Your task to perform on an android device: turn off notifications settings in the gmail app Image 0: 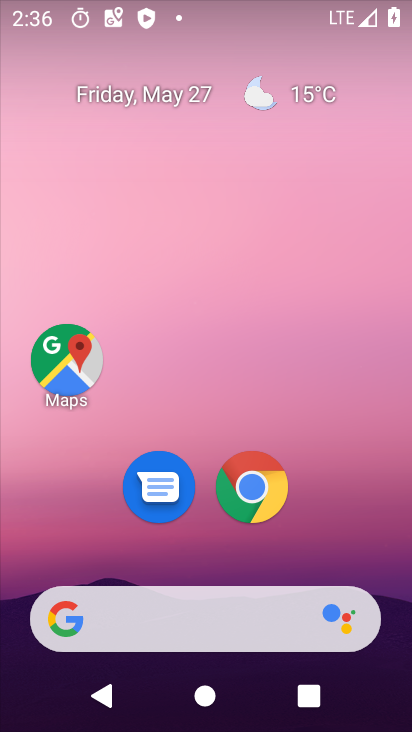
Step 0: drag from (348, 507) to (332, 40)
Your task to perform on an android device: turn off notifications settings in the gmail app Image 1: 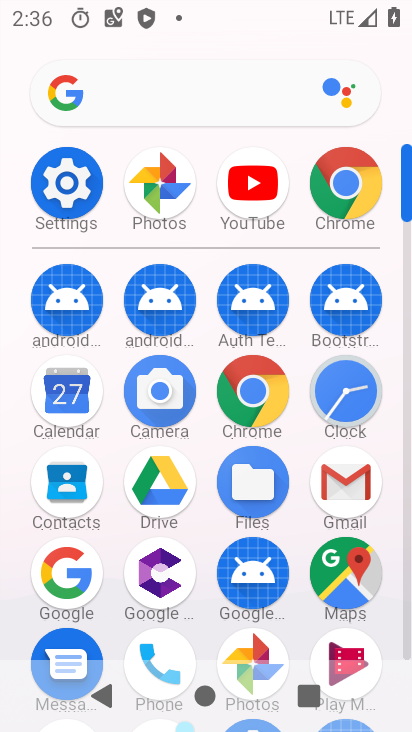
Step 1: click (357, 493)
Your task to perform on an android device: turn off notifications settings in the gmail app Image 2: 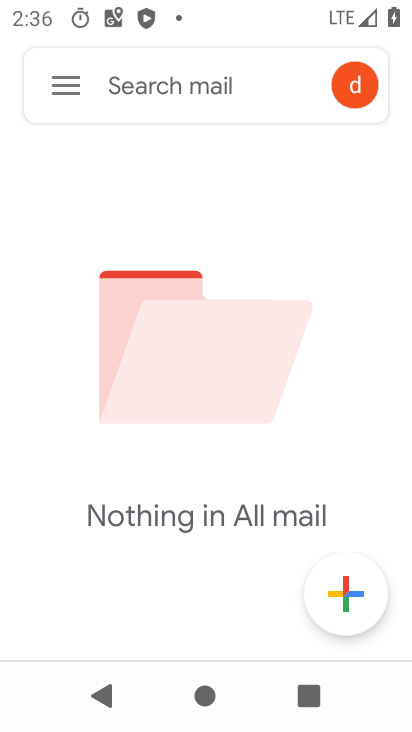
Step 2: click (64, 77)
Your task to perform on an android device: turn off notifications settings in the gmail app Image 3: 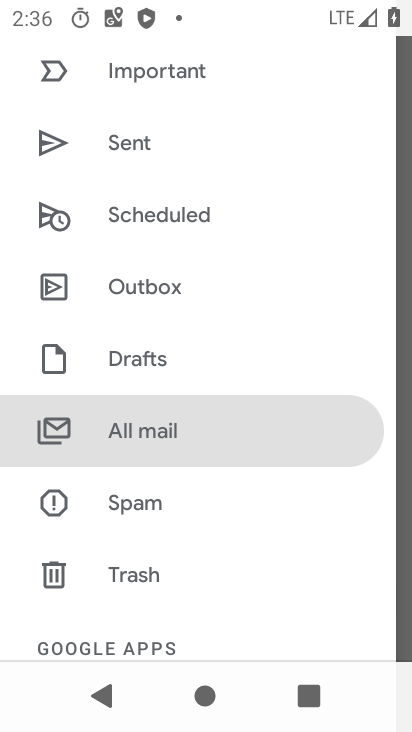
Step 3: drag from (177, 587) to (202, 239)
Your task to perform on an android device: turn off notifications settings in the gmail app Image 4: 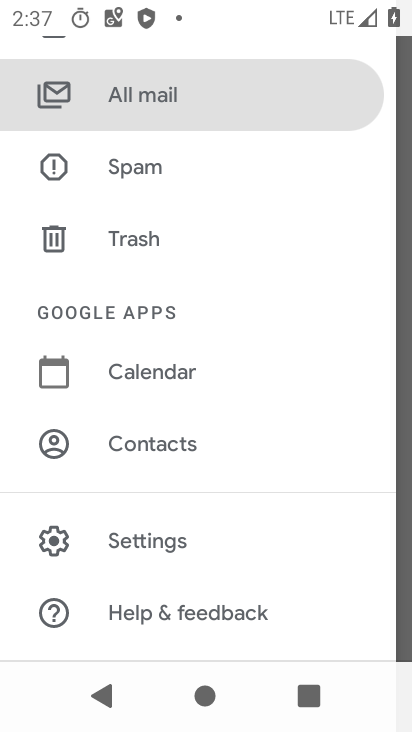
Step 4: click (155, 532)
Your task to perform on an android device: turn off notifications settings in the gmail app Image 5: 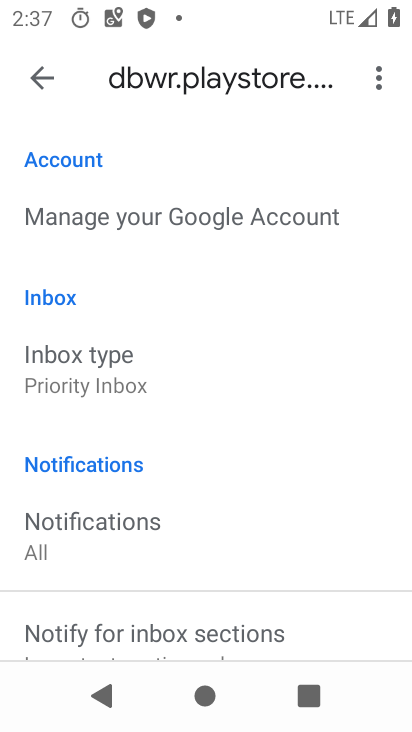
Step 5: drag from (123, 531) to (236, 165)
Your task to perform on an android device: turn off notifications settings in the gmail app Image 6: 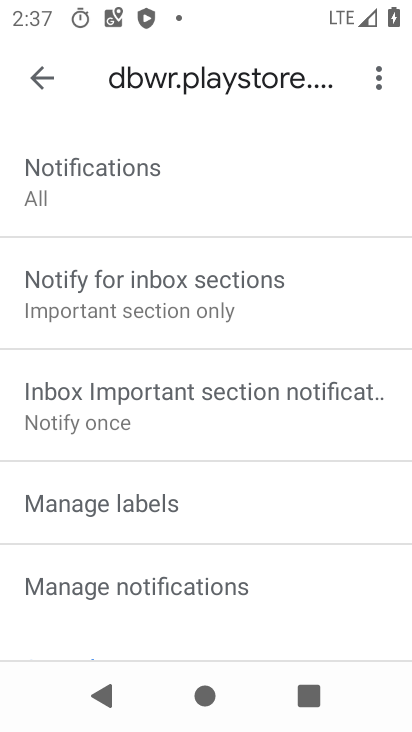
Step 6: drag from (154, 571) to (227, 230)
Your task to perform on an android device: turn off notifications settings in the gmail app Image 7: 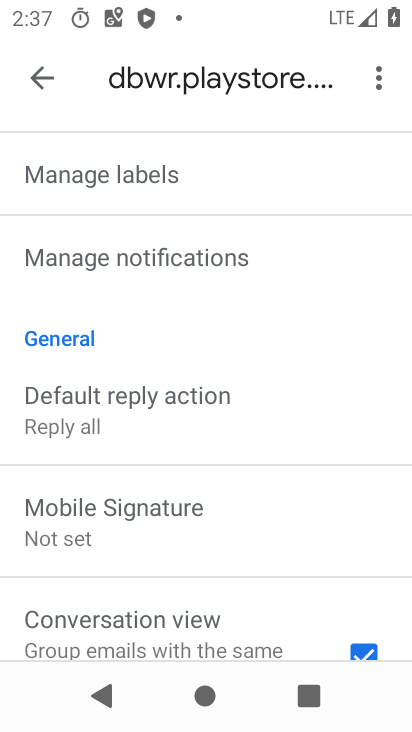
Step 7: click (204, 264)
Your task to perform on an android device: turn off notifications settings in the gmail app Image 8: 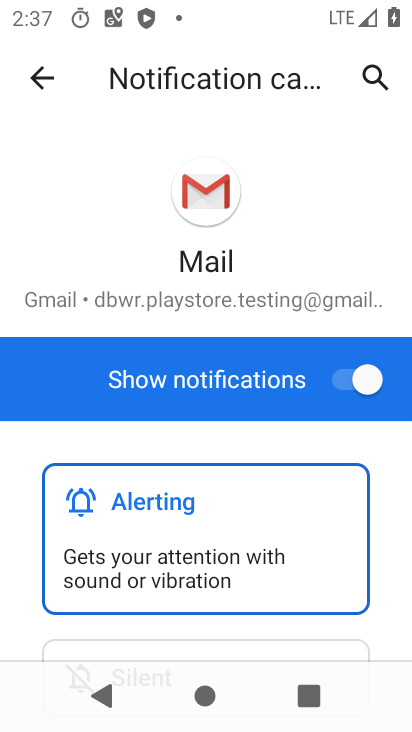
Step 8: click (363, 377)
Your task to perform on an android device: turn off notifications settings in the gmail app Image 9: 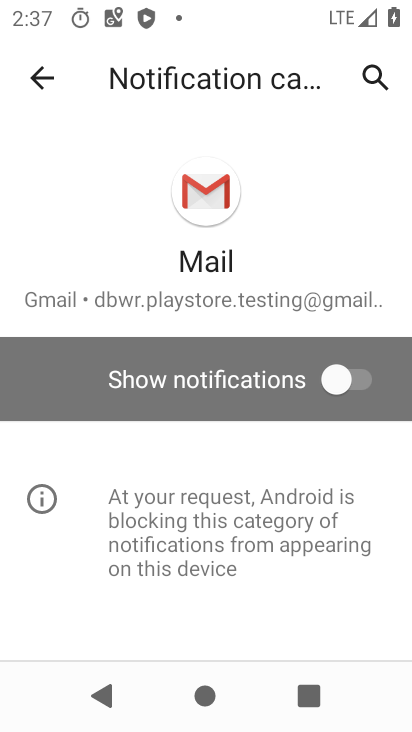
Step 9: task complete